Your task to perform on an android device: Find coffee shops on Maps Image 0: 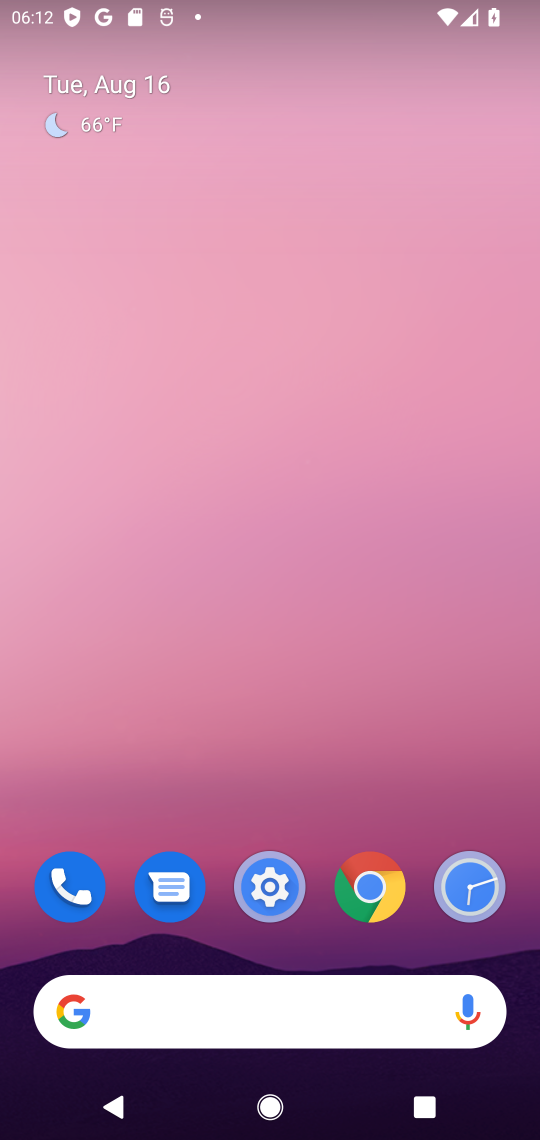
Step 0: drag from (378, 590) to (376, 190)
Your task to perform on an android device: Find coffee shops on Maps Image 1: 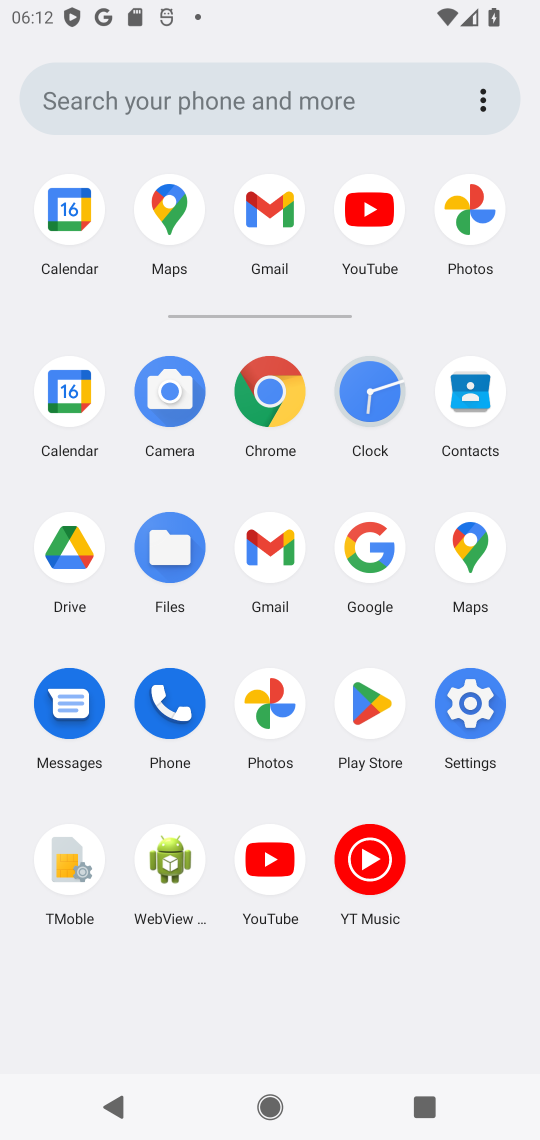
Step 1: click (465, 553)
Your task to perform on an android device: Find coffee shops on Maps Image 2: 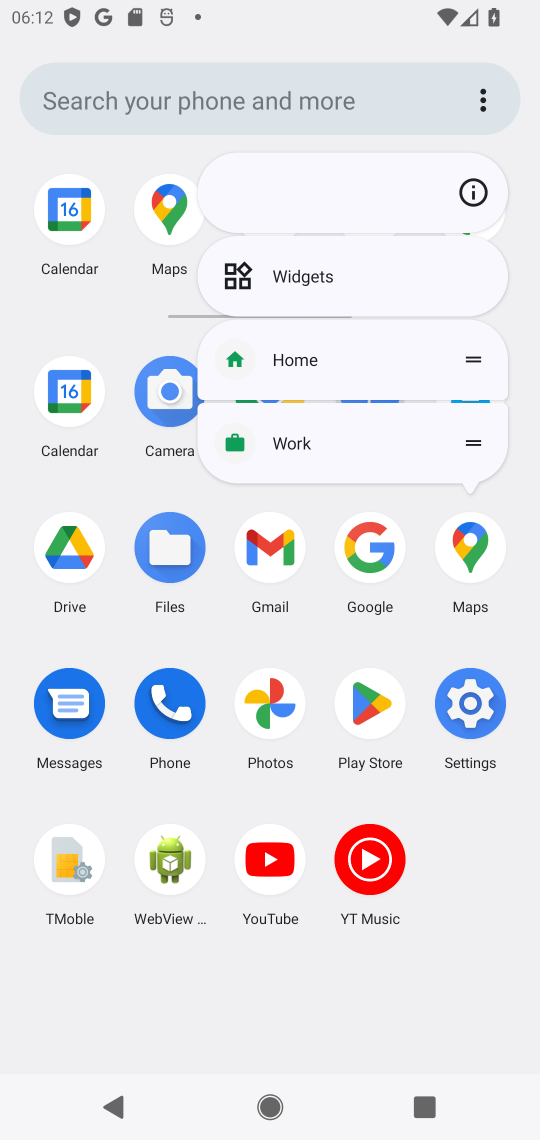
Step 2: click (469, 549)
Your task to perform on an android device: Find coffee shops on Maps Image 3: 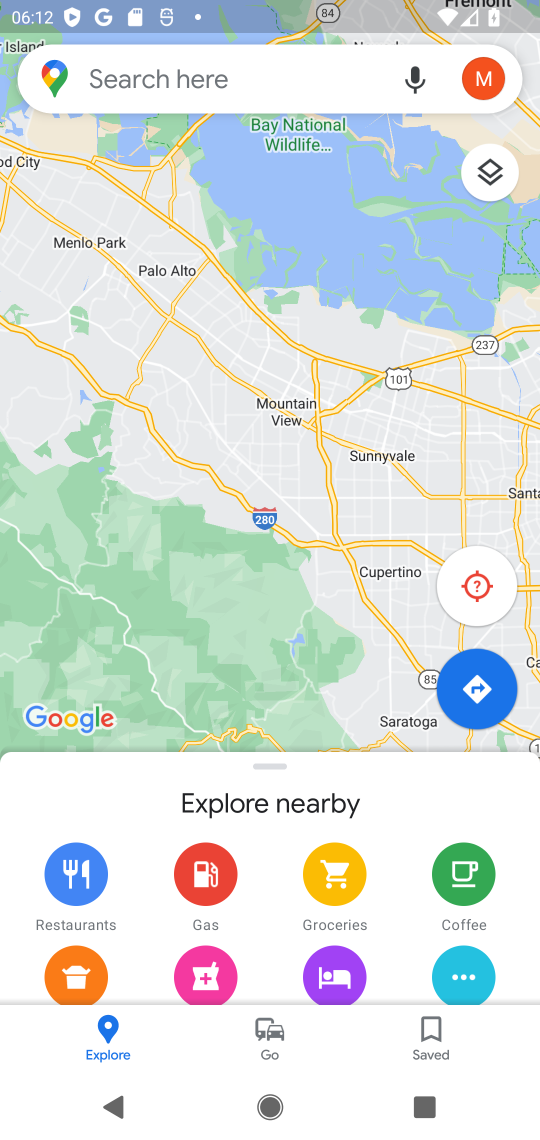
Step 3: click (155, 76)
Your task to perform on an android device: Find coffee shops on Maps Image 4: 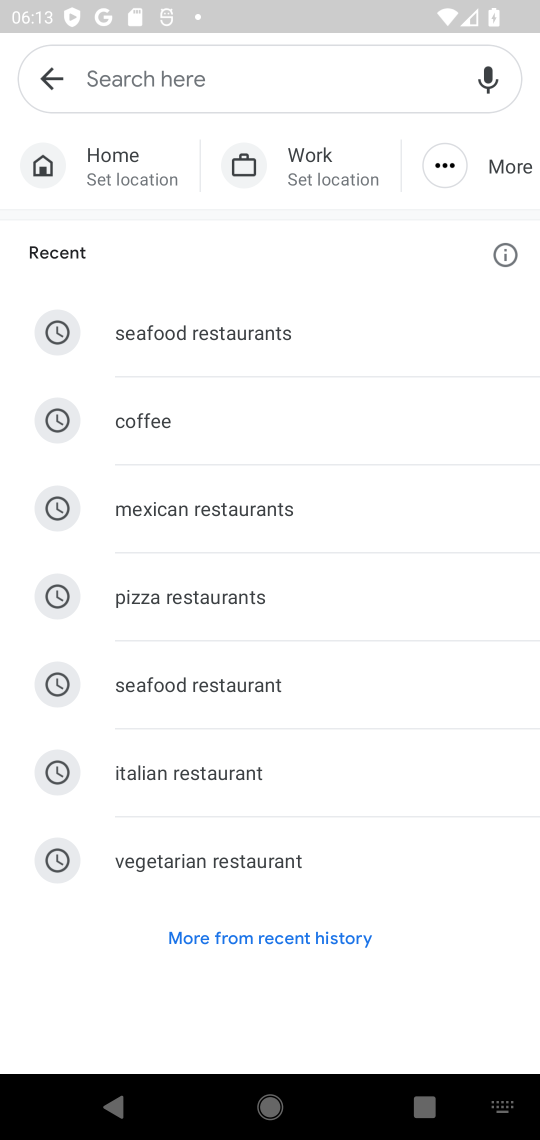
Step 4: type "coffee shops"
Your task to perform on an android device: Find coffee shops on Maps Image 5: 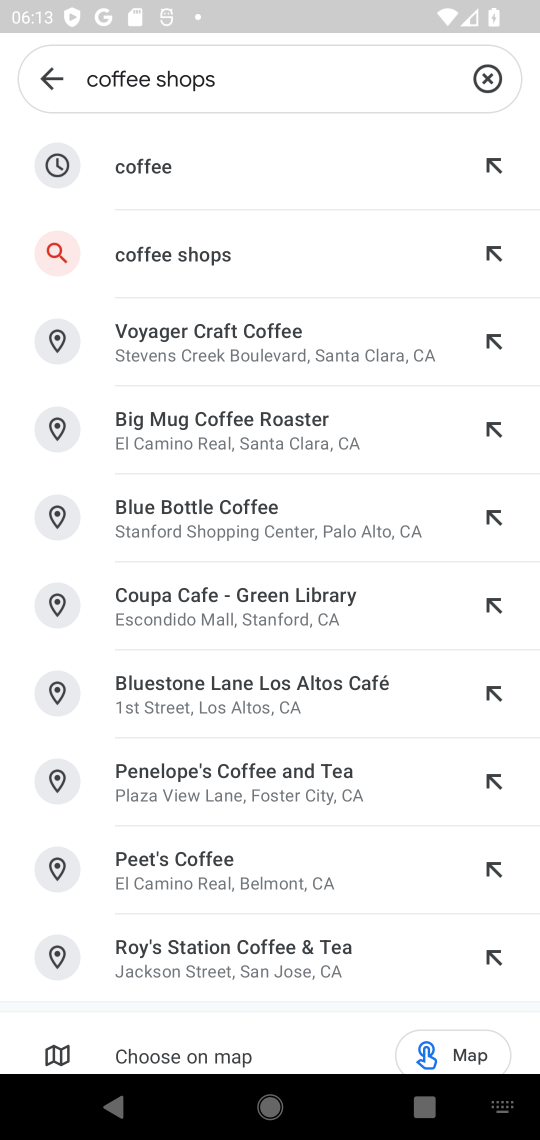
Step 5: click (173, 261)
Your task to perform on an android device: Find coffee shops on Maps Image 6: 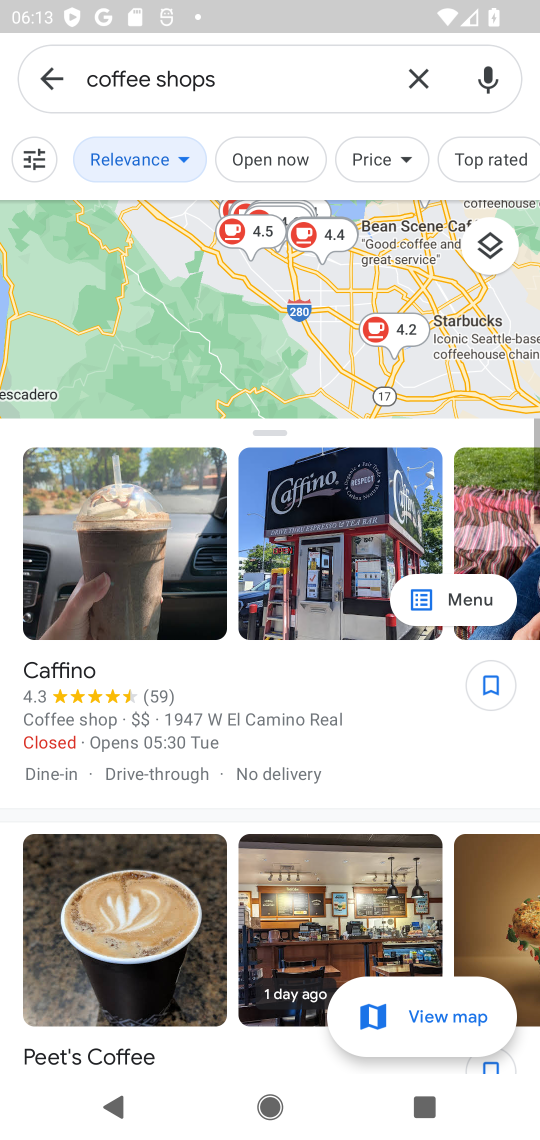
Step 6: task complete